Your task to perform on an android device: find photos in the google photos app Image 0: 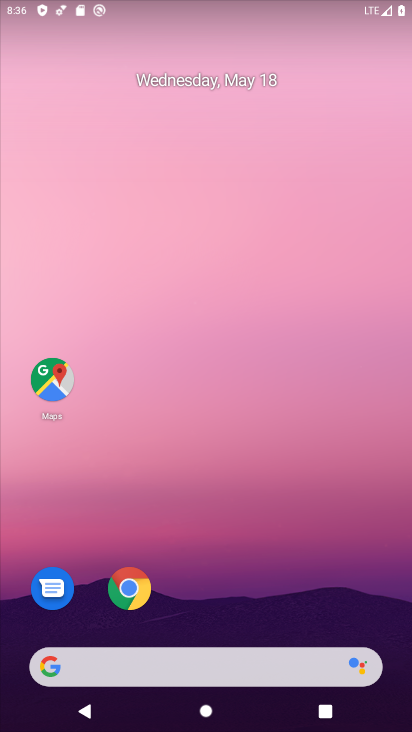
Step 0: drag from (400, 623) to (407, 45)
Your task to perform on an android device: find photos in the google photos app Image 1: 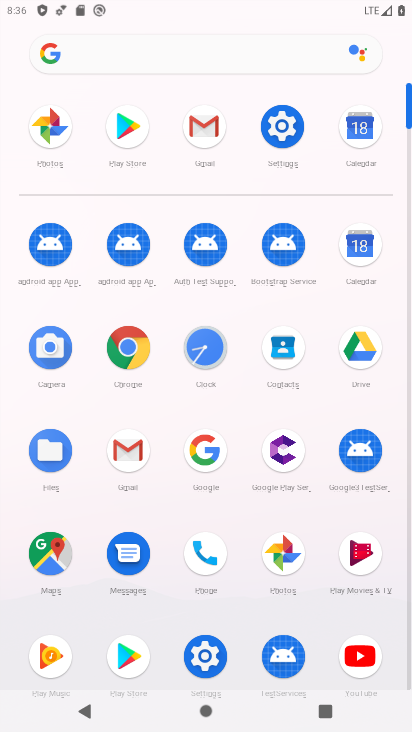
Step 1: click (277, 550)
Your task to perform on an android device: find photos in the google photos app Image 2: 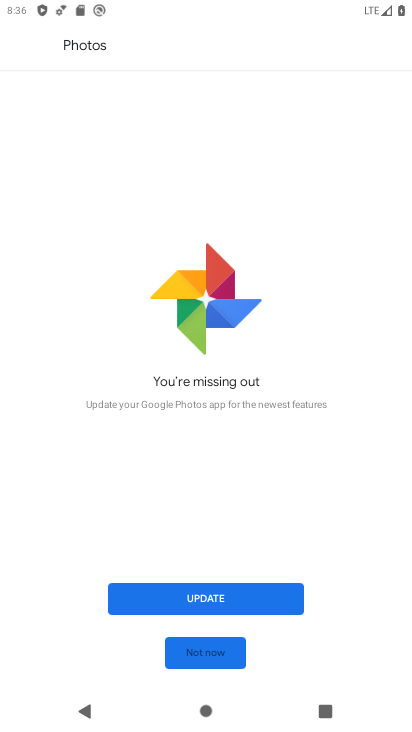
Step 2: click (202, 654)
Your task to perform on an android device: find photos in the google photos app Image 3: 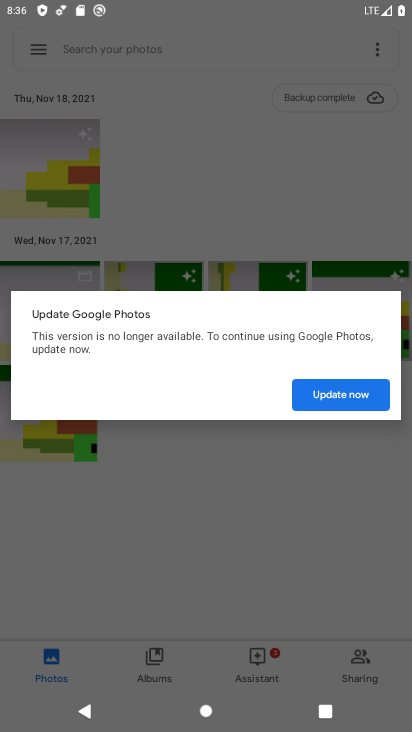
Step 3: click (351, 393)
Your task to perform on an android device: find photos in the google photos app Image 4: 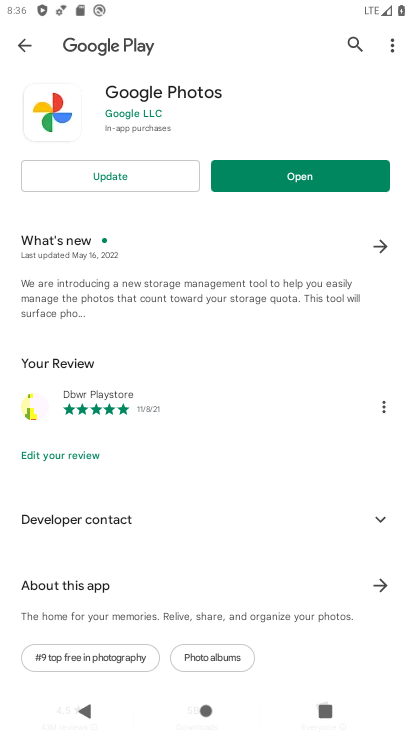
Step 4: click (260, 186)
Your task to perform on an android device: find photos in the google photos app Image 5: 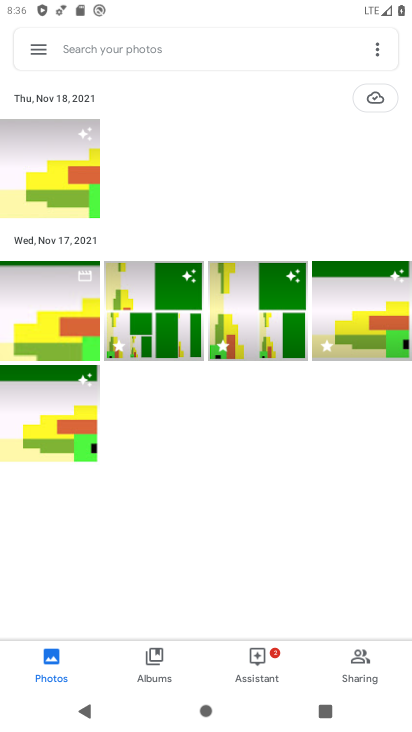
Step 5: task complete